Your task to perform on an android device: What's the weather? Image 0: 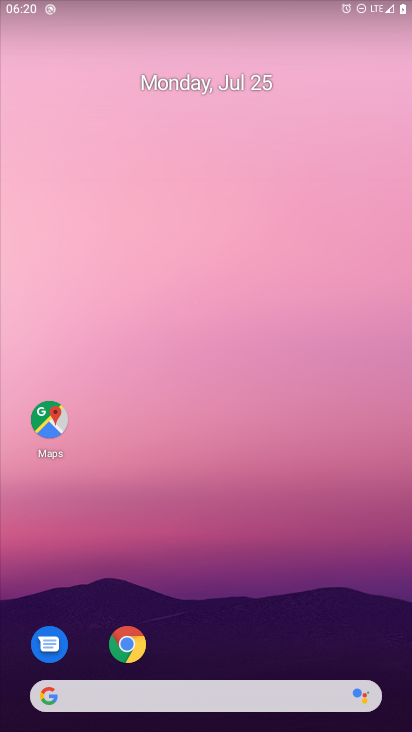
Step 0: press home button
Your task to perform on an android device: What's the weather? Image 1: 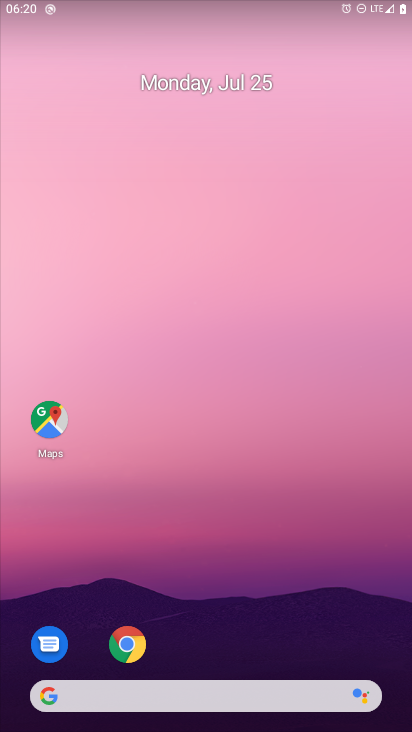
Step 1: click (46, 707)
Your task to perform on an android device: What's the weather? Image 2: 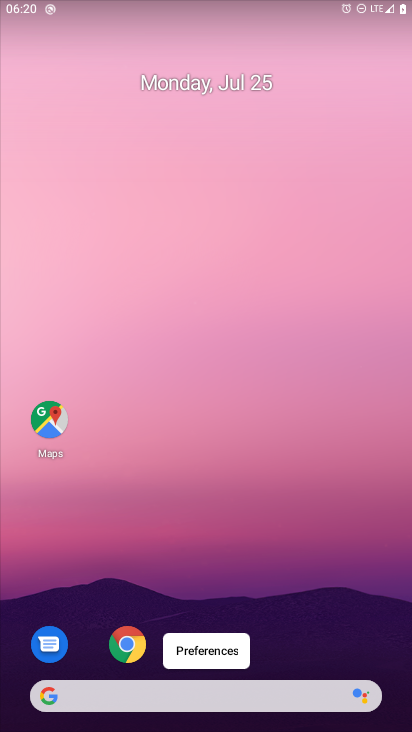
Step 2: click (50, 703)
Your task to perform on an android device: What's the weather? Image 3: 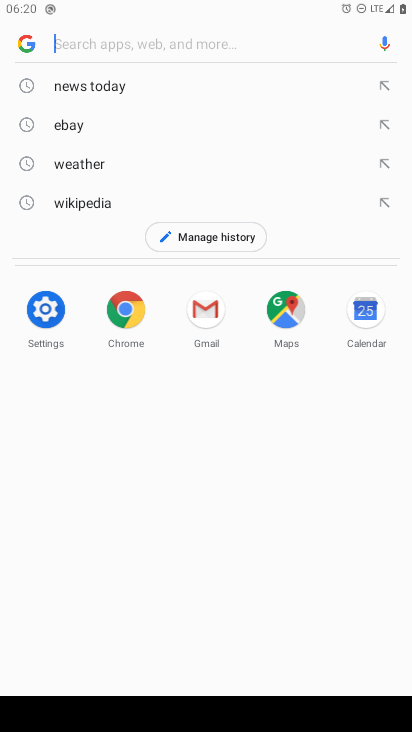
Step 3: click (83, 165)
Your task to perform on an android device: What's the weather? Image 4: 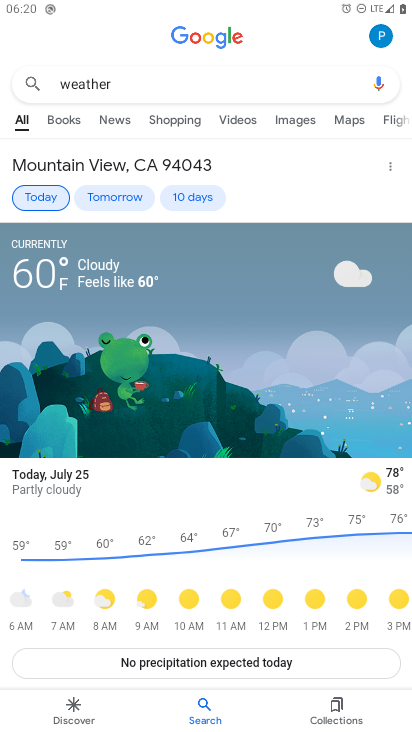
Step 4: task complete